Your task to perform on an android device: Go to Google Image 0: 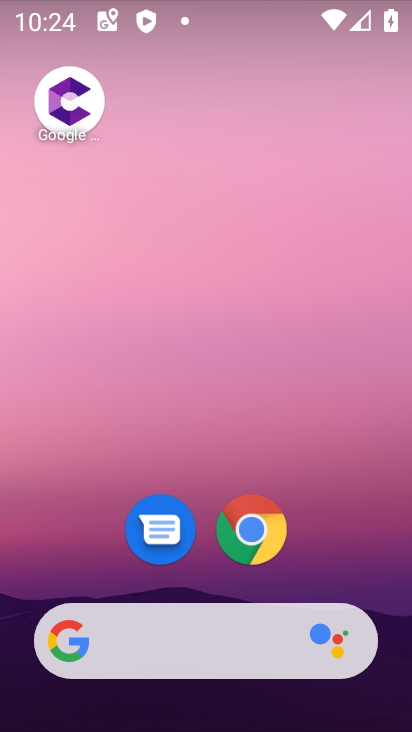
Step 0: click (241, 645)
Your task to perform on an android device: Go to Google Image 1: 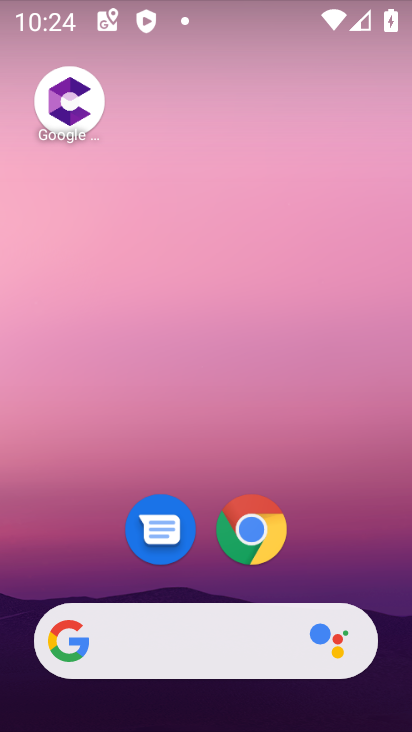
Step 1: click (222, 641)
Your task to perform on an android device: Go to Google Image 2: 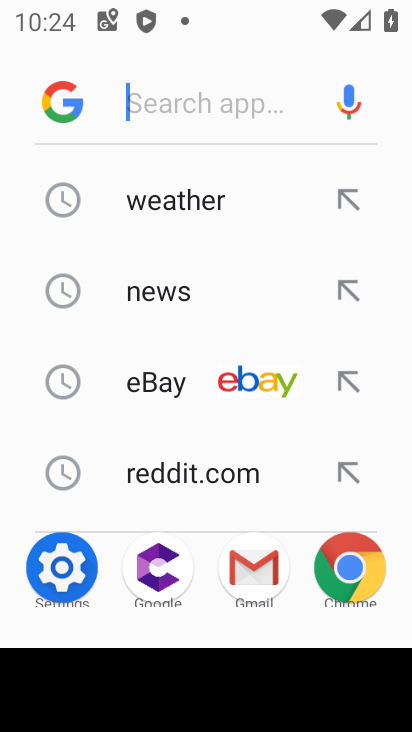
Step 2: type "google.com"
Your task to perform on an android device: Go to Google Image 3: 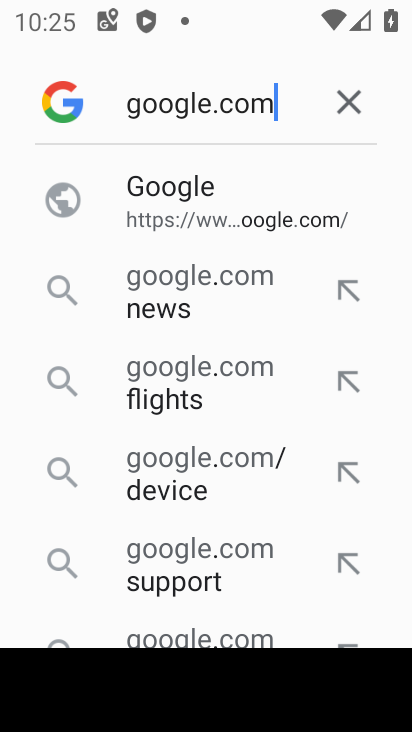
Step 3: click (201, 211)
Your task to perform on an android device: Go to Google Image 4: 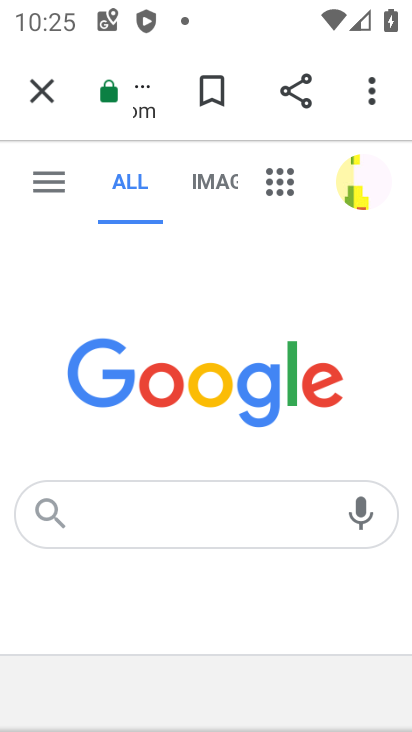
Step 4: task complete